Your task to perform on an android device: turn on airplane mode Image 0: 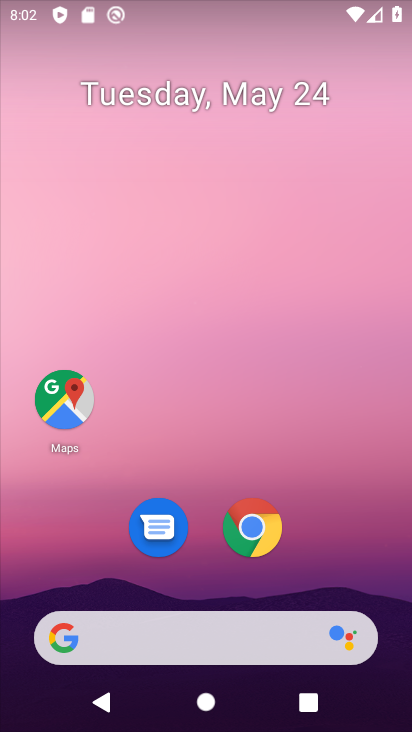
Step 0: drag from (339, 503) to (298, 68)
Your task to perform on an android device: turn on airplane mode Image 1: 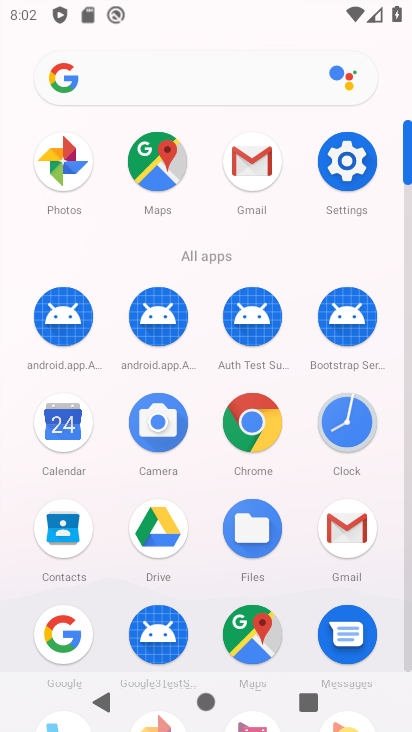
Step 1: drag from (333, 152) to (109, 180)
Your task to perform on an android device: turn on airplane mode Image 2: 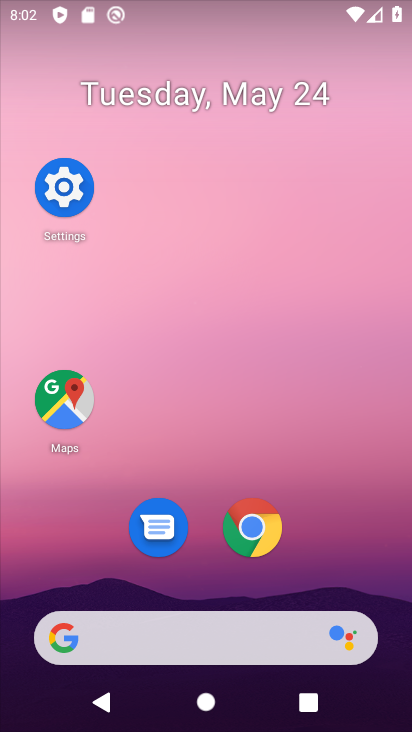
Step 2: click (72, 160)
Your task to perform on an android device: turn on airplane mode Image 3: 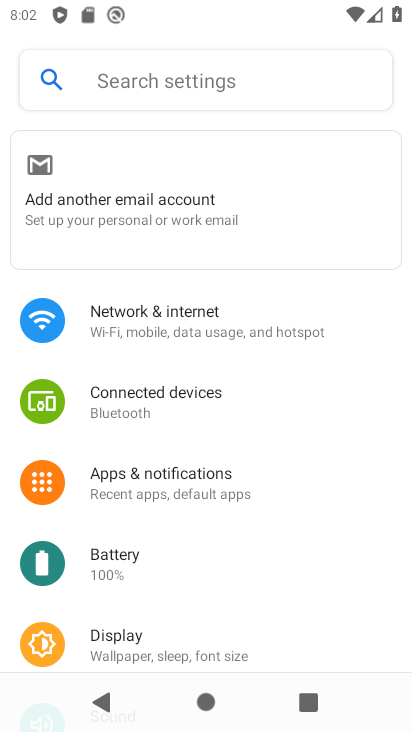
Step 3: click (161, 325)
Your task to perform on an android device: turn on airplane mode Image 4: 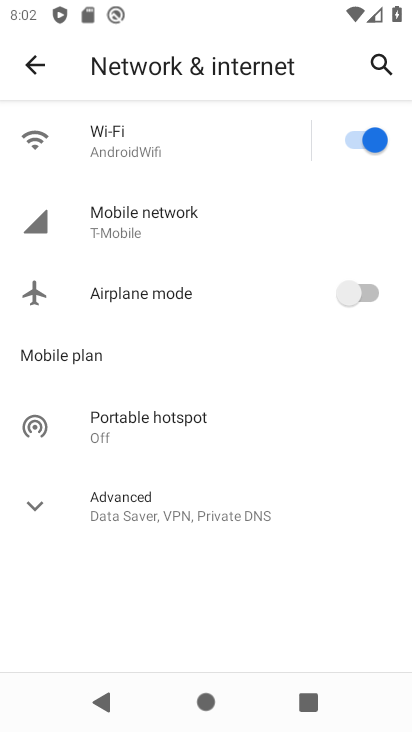
Step 4: click (370, 284)
Your task to perform on an android device: turn on airplane mode Image 5: 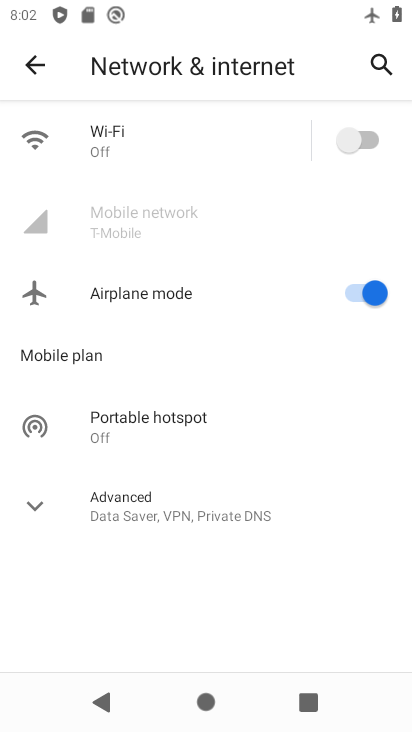
Step 5: task complete